Your task to perform on an android device: turn off wifi Image 0: 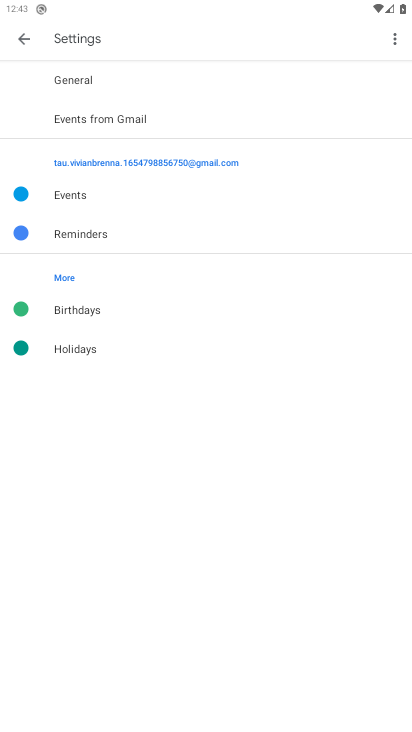
Step 0: press home button
Your task to perform on an android device: turn off wifi Image 1: 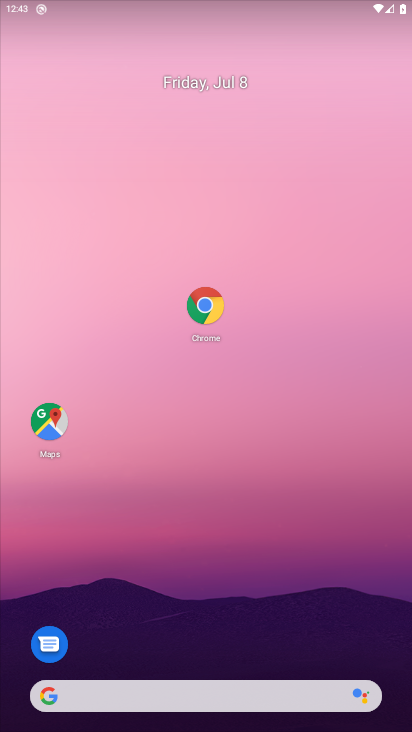
Step 1: drag from (167, 691) to (157, 265)
Your task to perform on an android device: turn off wifi Image 2: 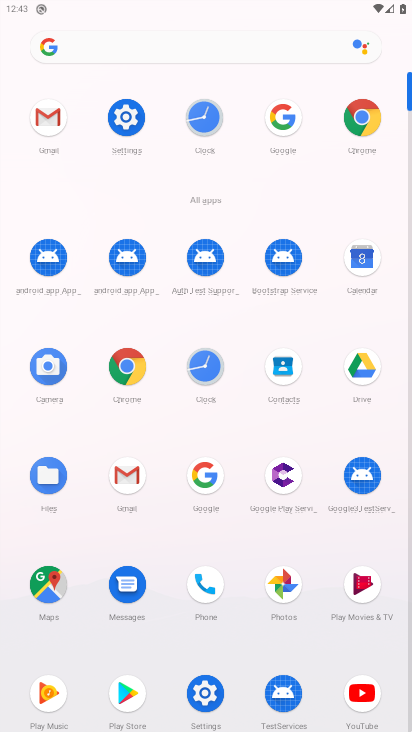
Step 2: click (123, 121)
Your task to perform on an android device: turn off wifi Image 3: 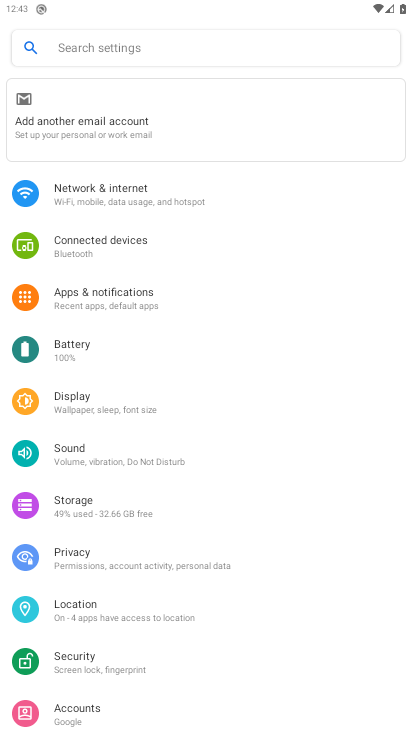
Step 3: click (114, 191)
Your task to perform on an android device: turn off wifi Image 4: 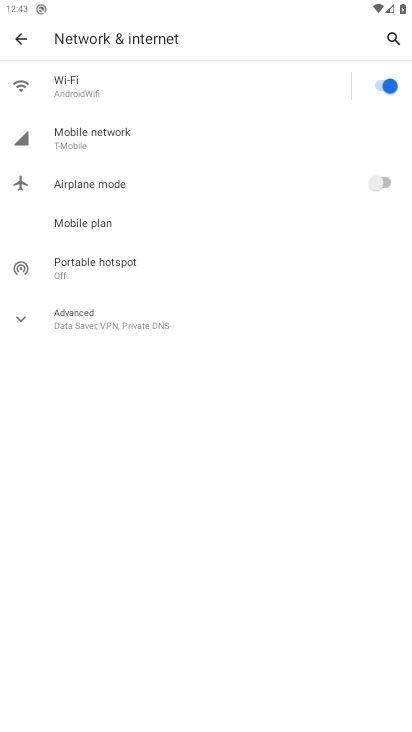
Step 4: click (378, 86)
Your task to perform on an android device: turn off wifi Image 5: 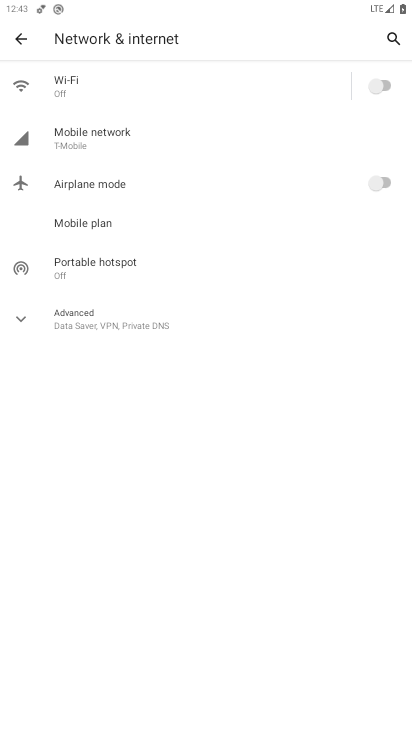
Step 5: task complete